Your task to perform on an android device: Open battery settings Image 0: 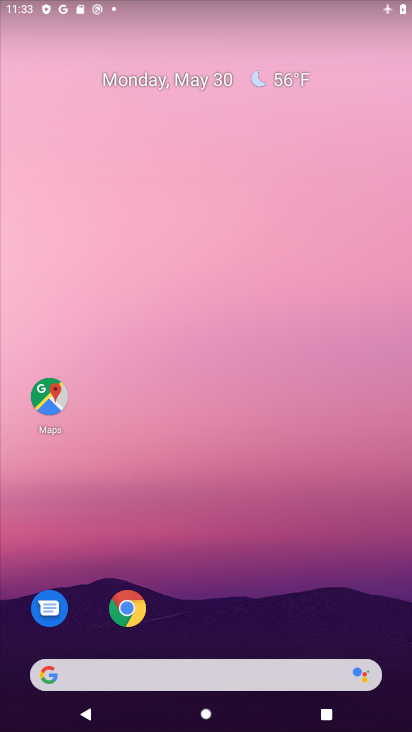
Step 0: drag from (173, 531) to (214, 42)
Your task to perform on an android device: Open battery settings Image 1: 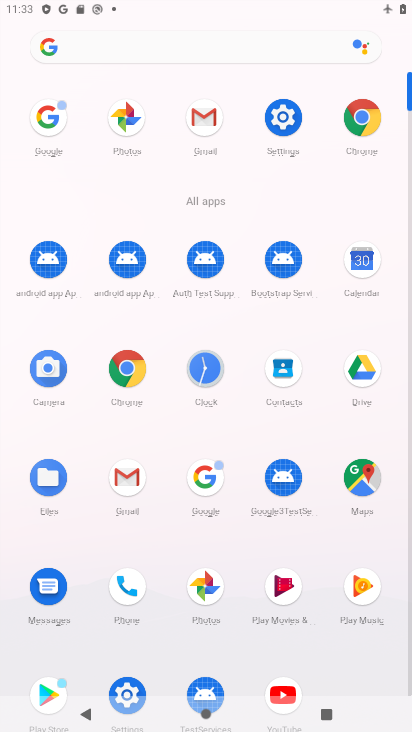
Step 1: click (279, 118)
Your task to perform on an android device: Open battery settings Image 2: 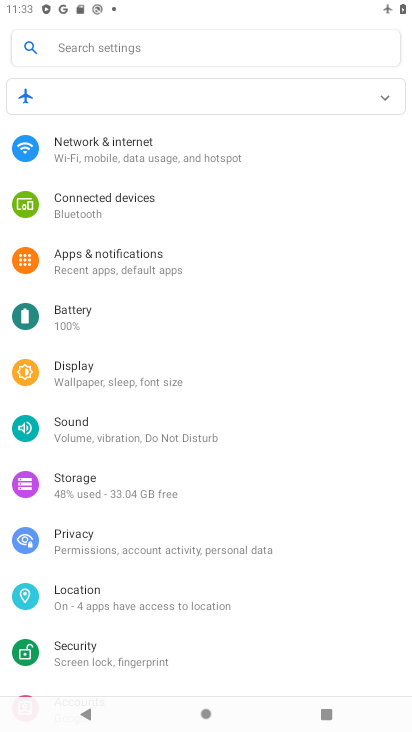
Step 2: click (108, 321)
Your task to perform on an android device: Open battery settings Image 3: 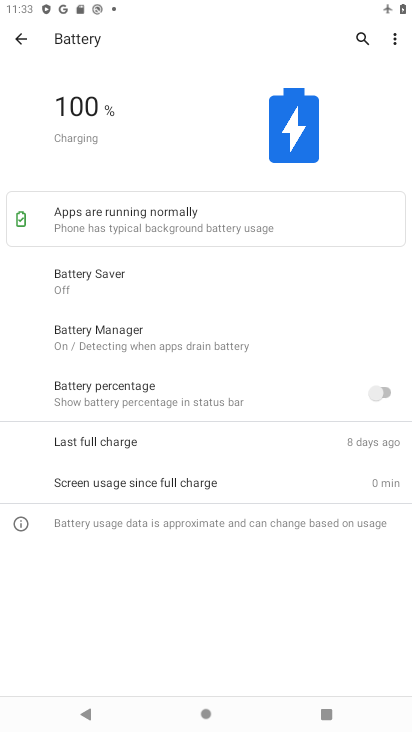
Step 3: task complete